Your task to perform on an android device: turn on bluetooth scan Image 0: 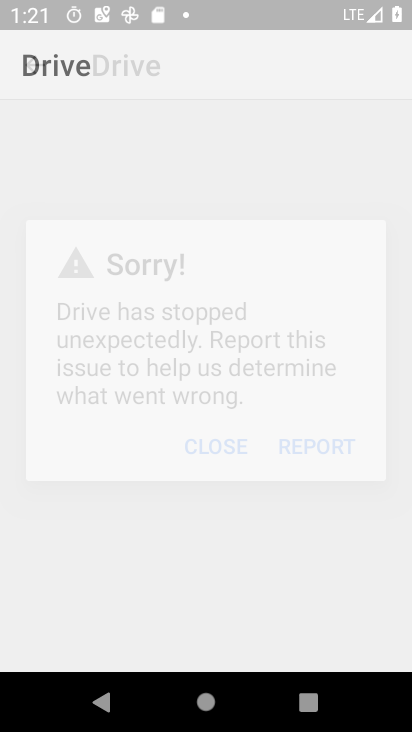
Step 0: drag from (313, 620) to (341, 200)
Your task to perform on an android device: turn on bluetooth scan Image 1: 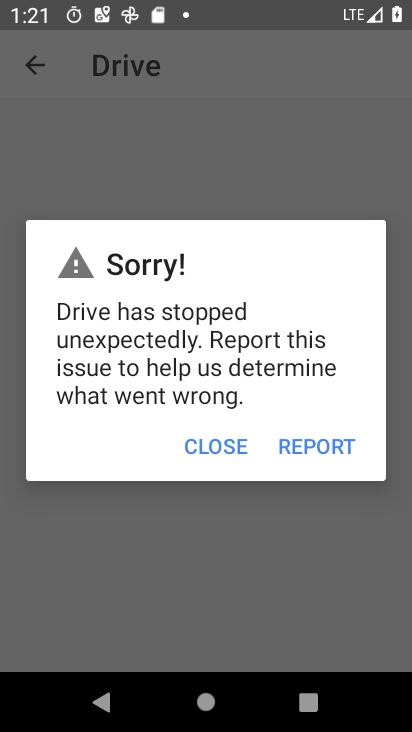
Step 1: press home button
Your task to perform on an android device: turn on bluetooth scan Image 2: 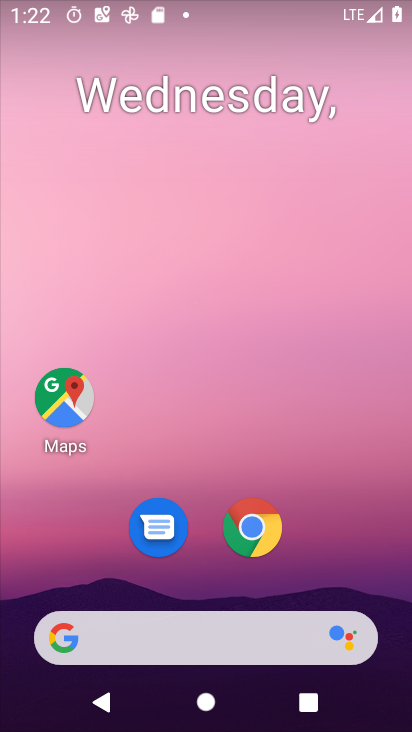
Step 2: drag from (143, 652) to (301, 80)
Your task to perform on an android device: turn on bluetooth scan Image 3: 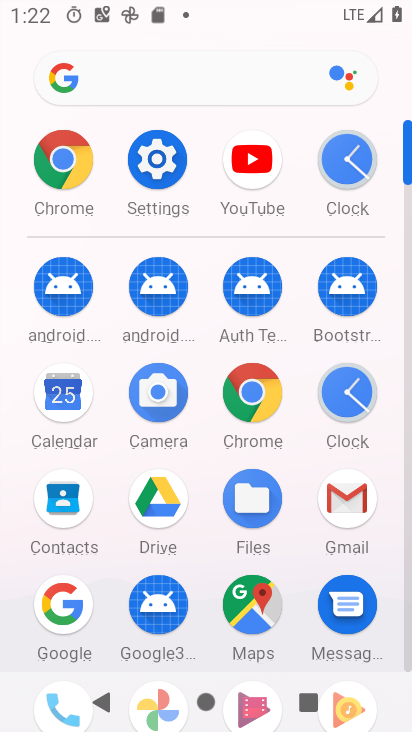
Step 3: click (162, 170)
Your task to perform on an android device: turn on bluetooth scan Image 4: 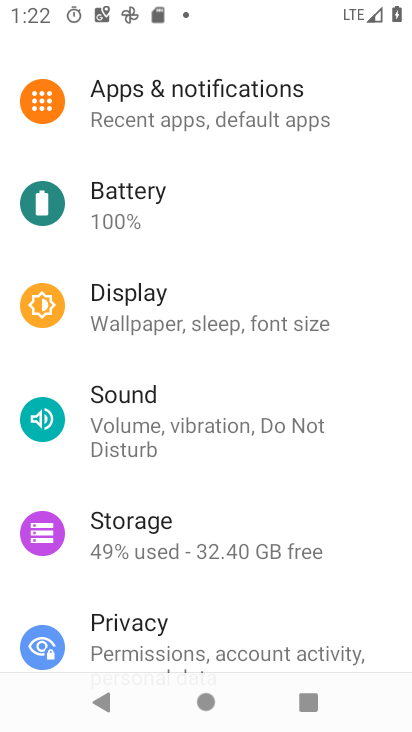
Step 4: drag from (189, 621) to (277, 62)
Your task to perform on an android device: turn on bluetooth scan Image 5: 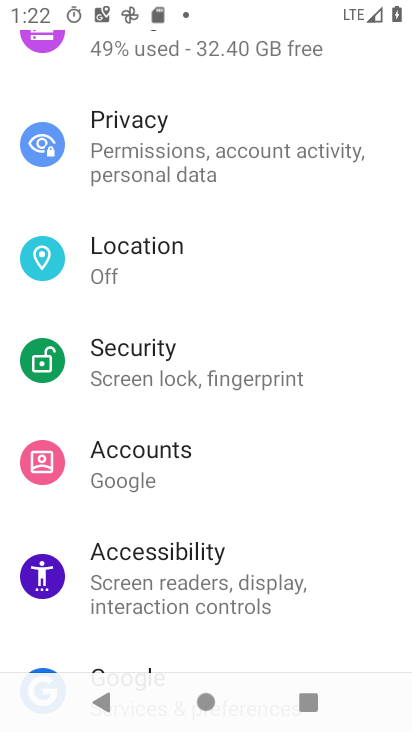
Step 5: click (224, 246)
Your task to perform on an android device: turn on bluetooth scan Image 6: 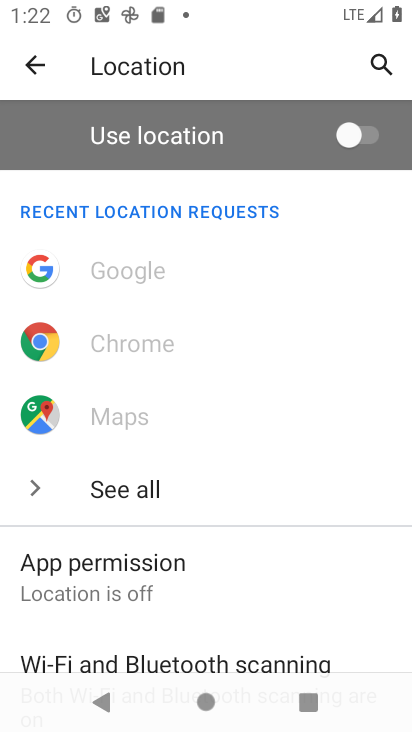
Step 6: drag from (223, 574) to (295, 171)
Your task to perform on an android device: turn on bluetooth scan Image 7: 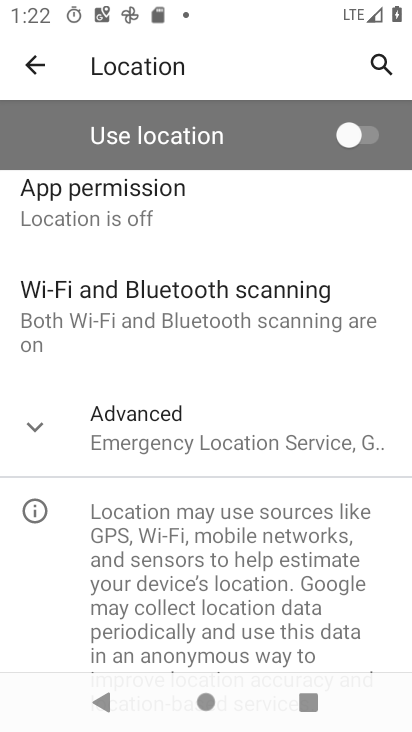
Step 7: click (236, 311)
Your task to perform on an android device: turn on bluetooth scan Image 8: 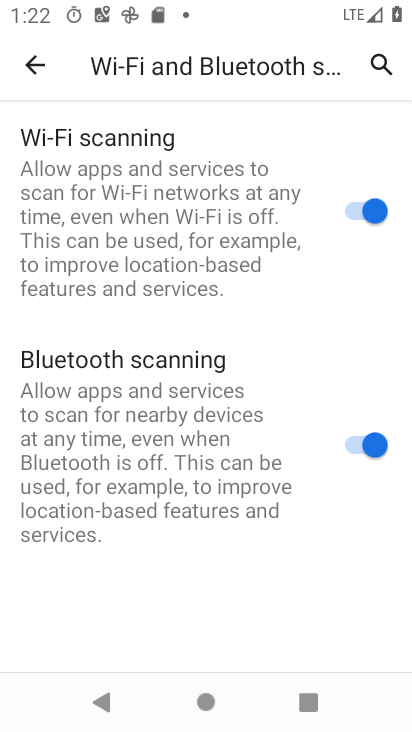
Step 8: task complete